Your task to perform on an android device: open the mobile data screen to see how much data has been used Image 0: 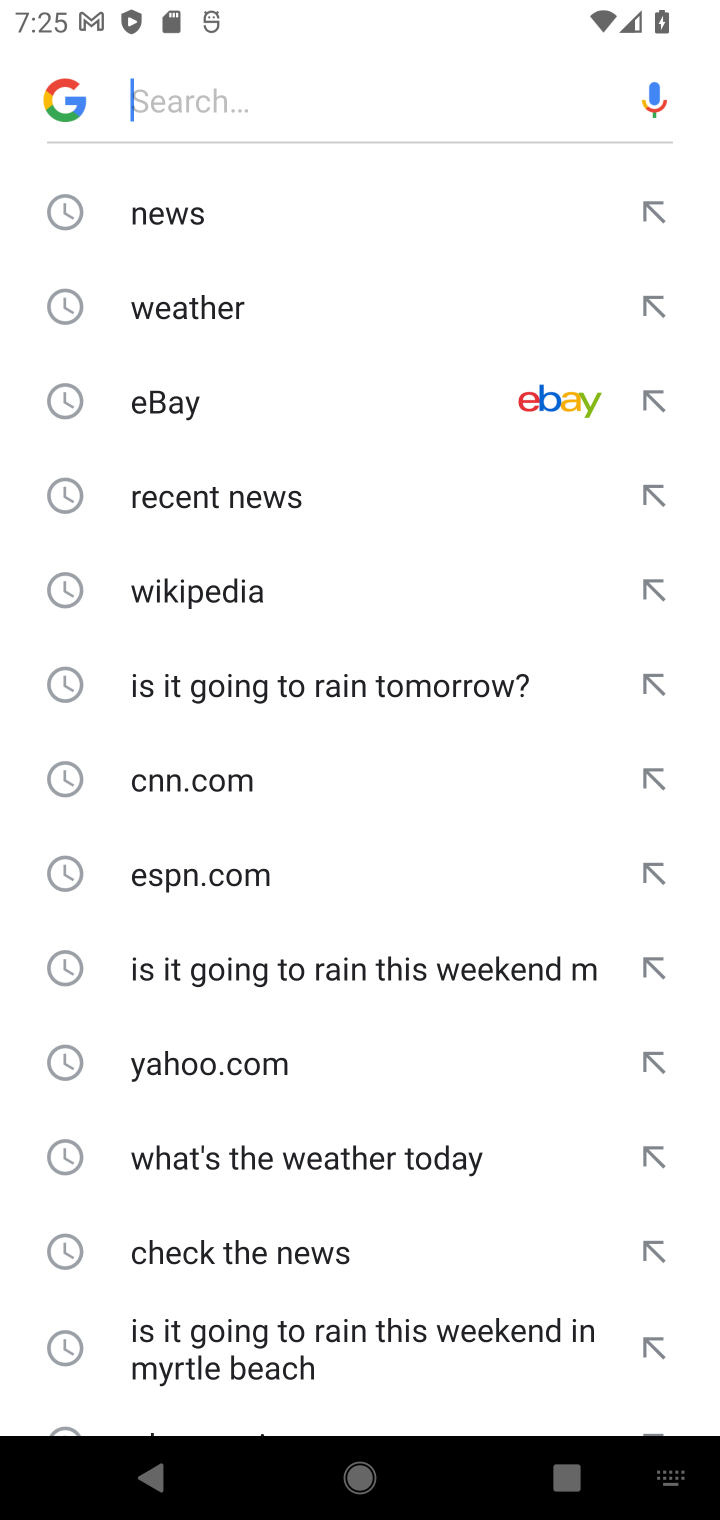
Step 0: press home button
Your task to perform on an android device: open the mobile data screen to see how much data has been used Image 1: 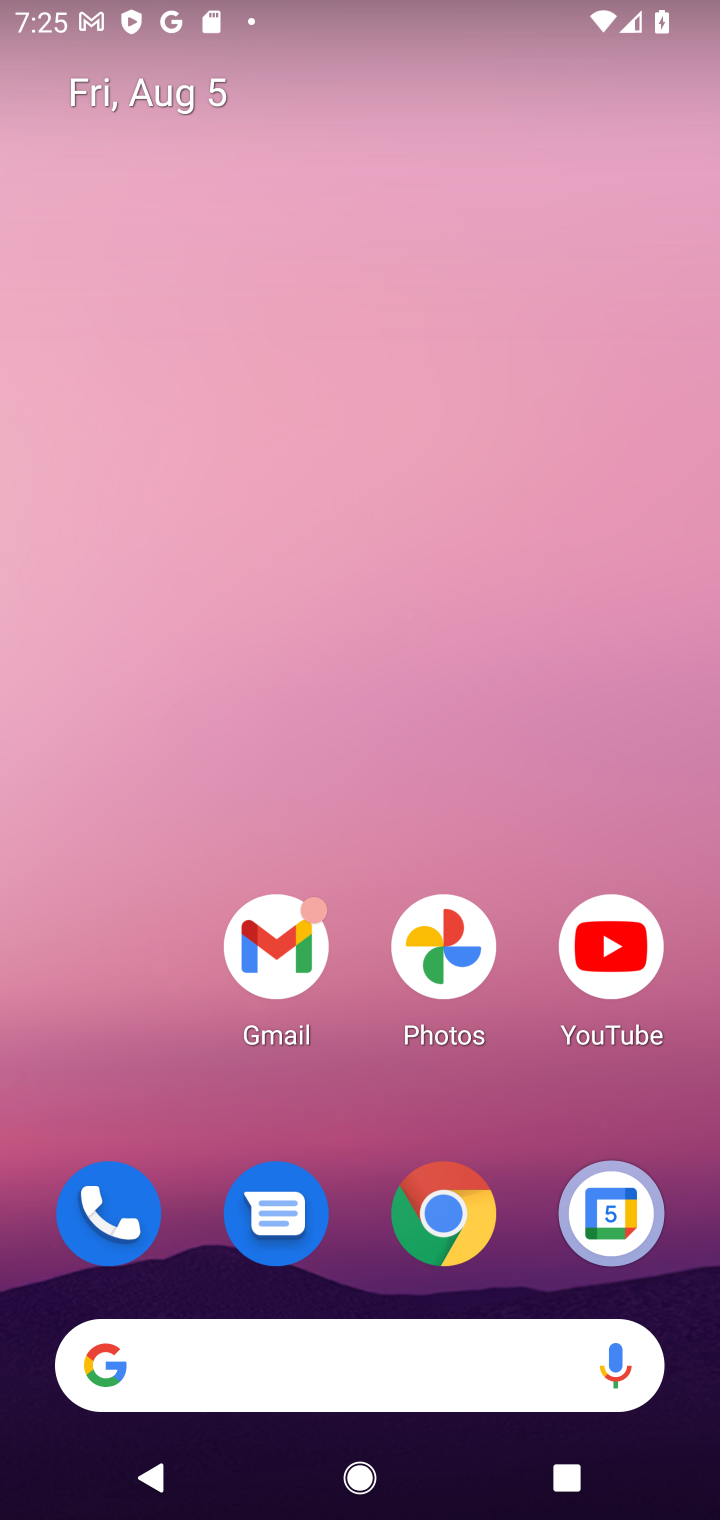
Step 1: drag from (439, 1323) to (589, 118)
Your task to perform on an android device: open the mobile data screen to see how much data has been used Image 2: 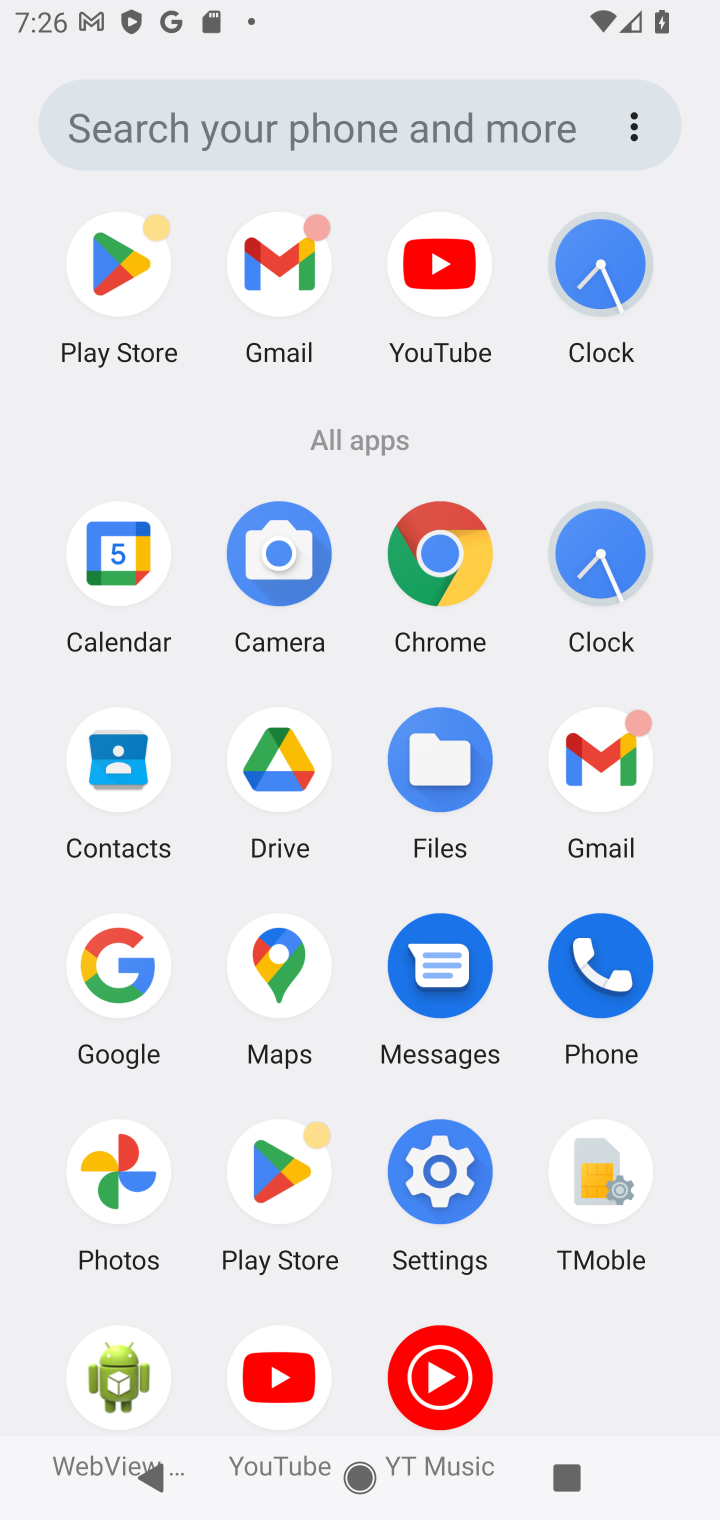
Step 2: click (435, 1166)
Your task to perform on an android device: open the mobile data screen to see how much data has been used Image 3: 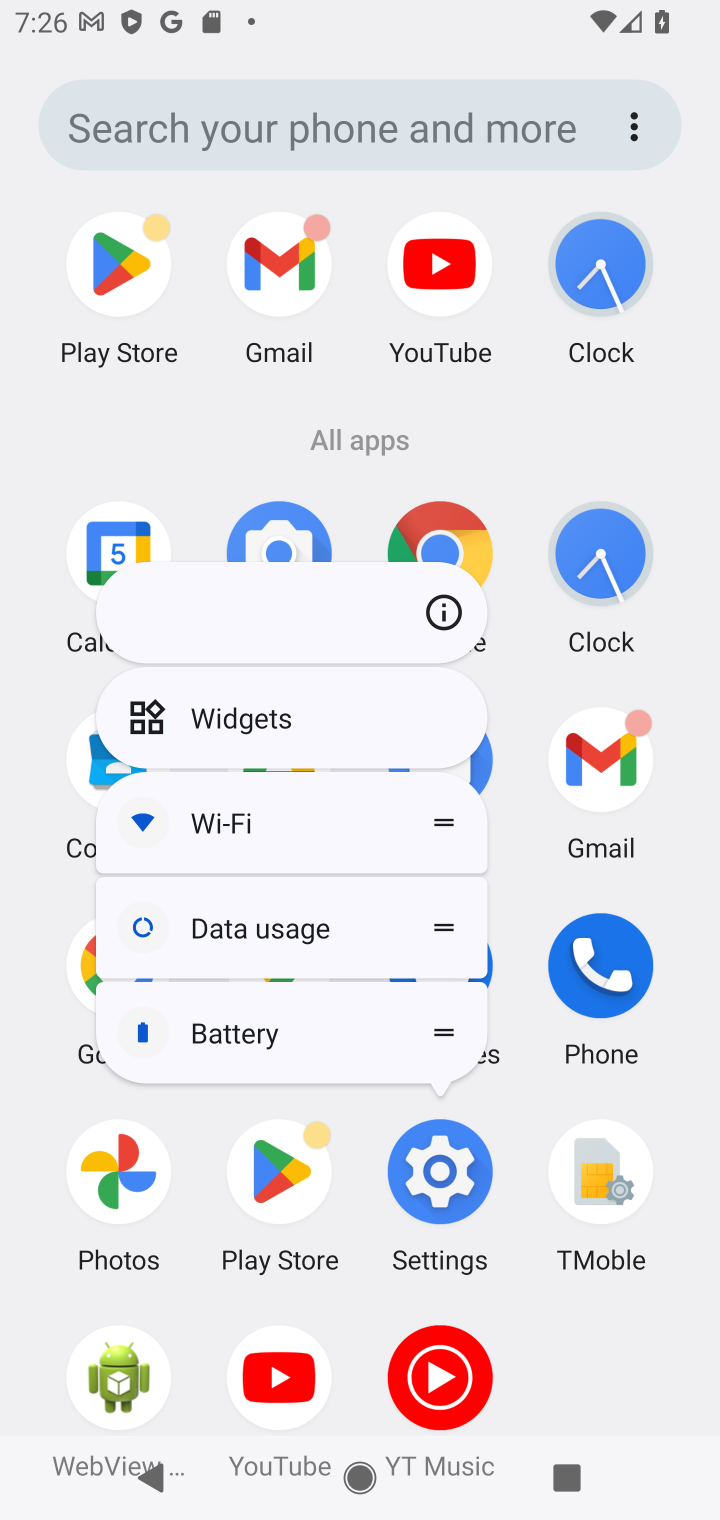
Step 3: click (425, 1186)
Your task to perform on an android device: open the mobile data screen to see how much data has been used Image 4: 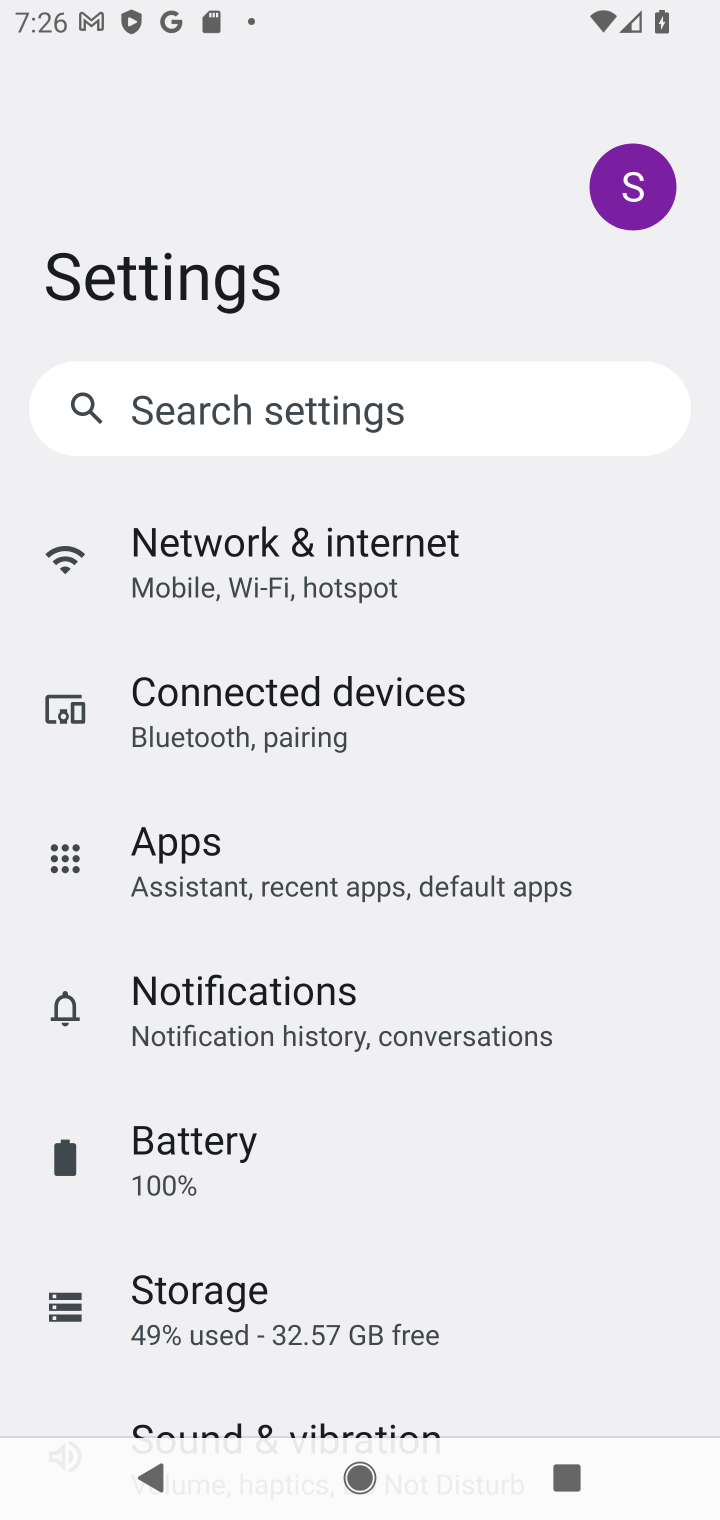
Step 4: click (248, 581)
Your task to perform on an android device: open the mobile data screen to see how much data has been used Image 5: 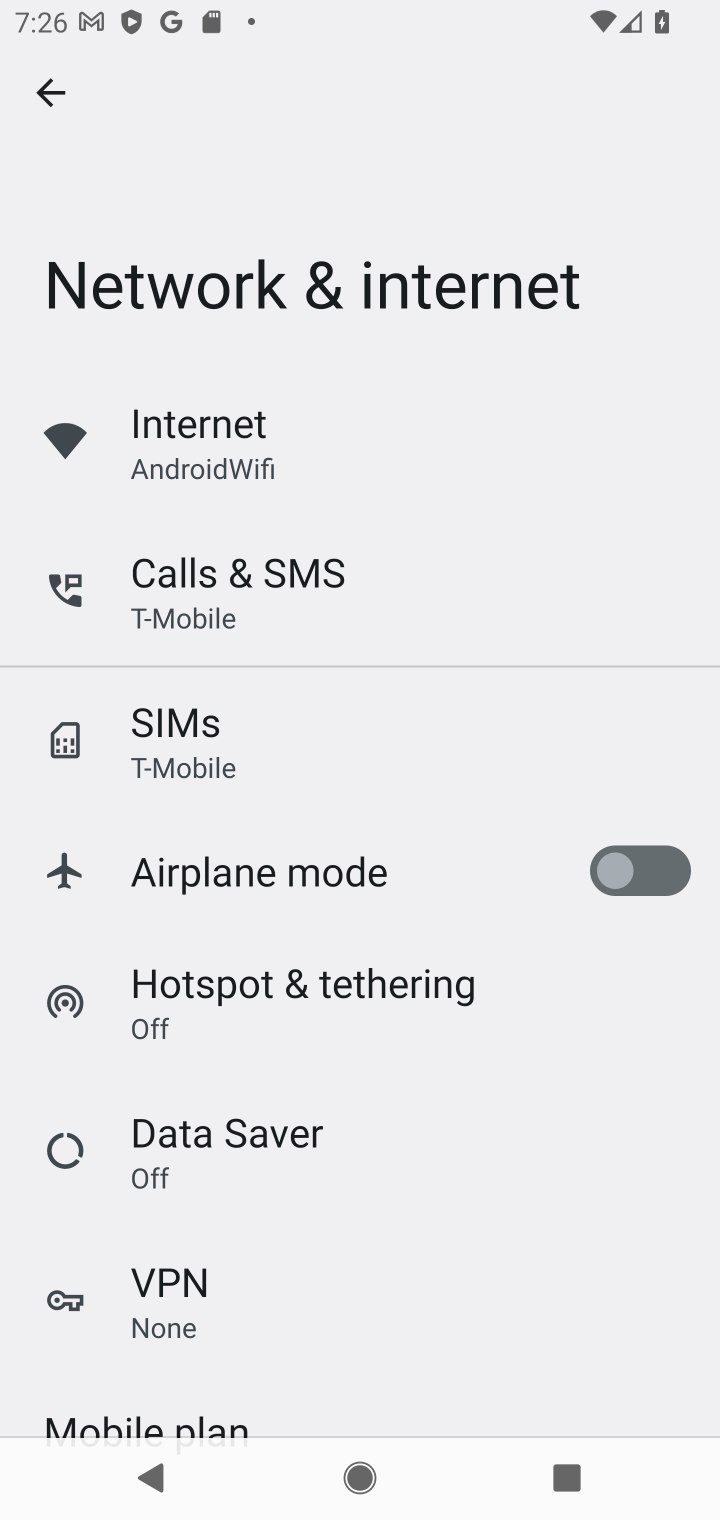
Step 5: click (242, 451)
Your task to perform on an android device: open the mobile data screen to see how much data has been used Image 6: 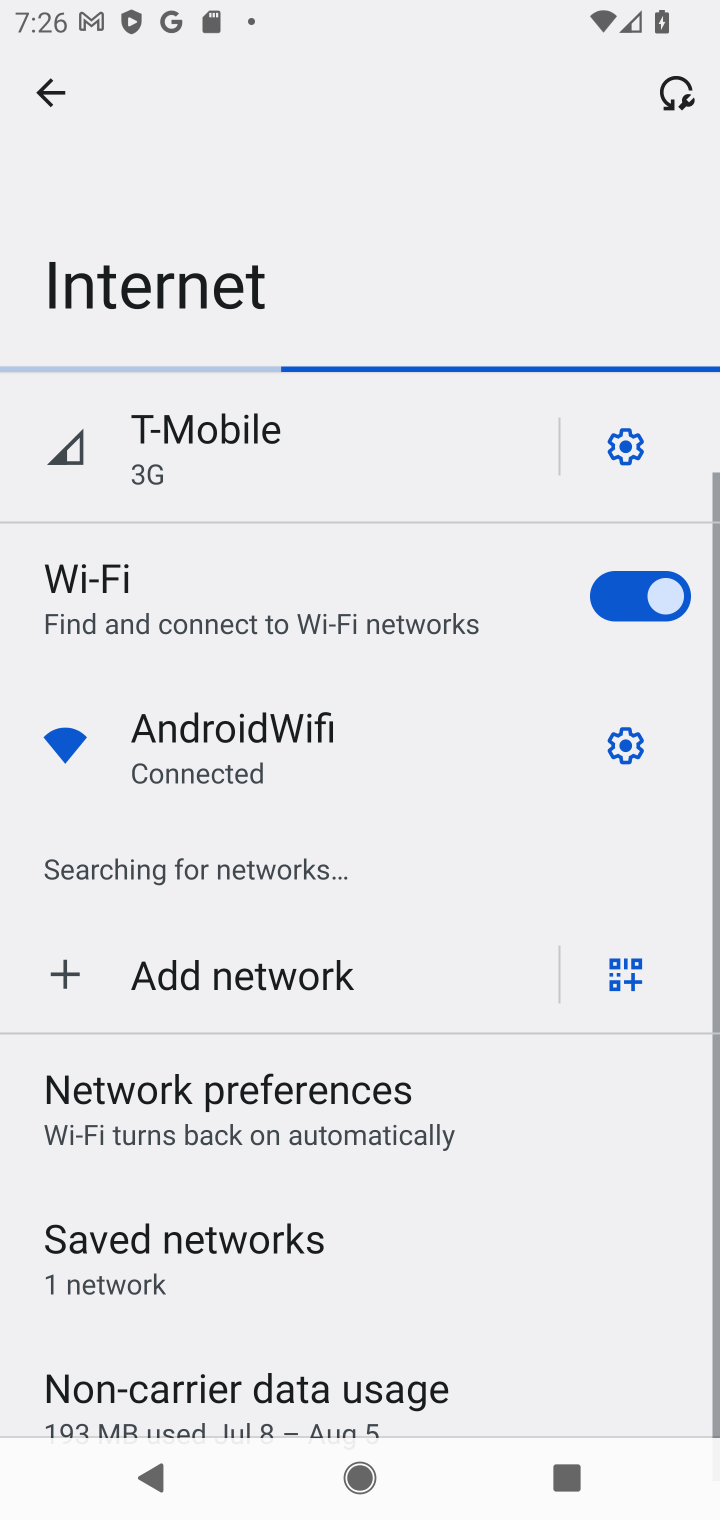
Step 6: drag from (264, 1176) to (300, 680)
Your task to perform on an android device: open the mobile data screen to see how much data has been used Image 7: 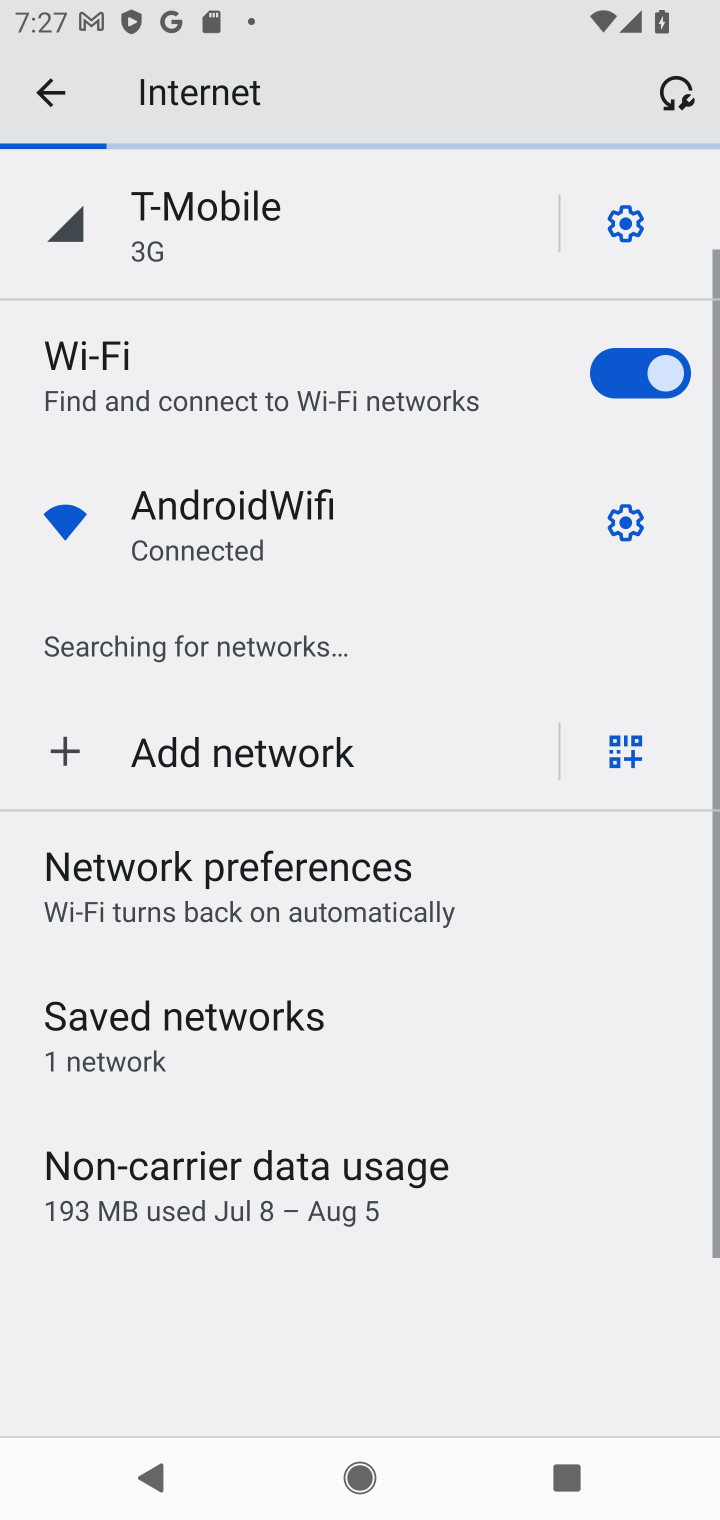
Step 7: click (55, 80)
Your task to perform on an android device: open the mobile data screen to see how much data has been used Image 8: 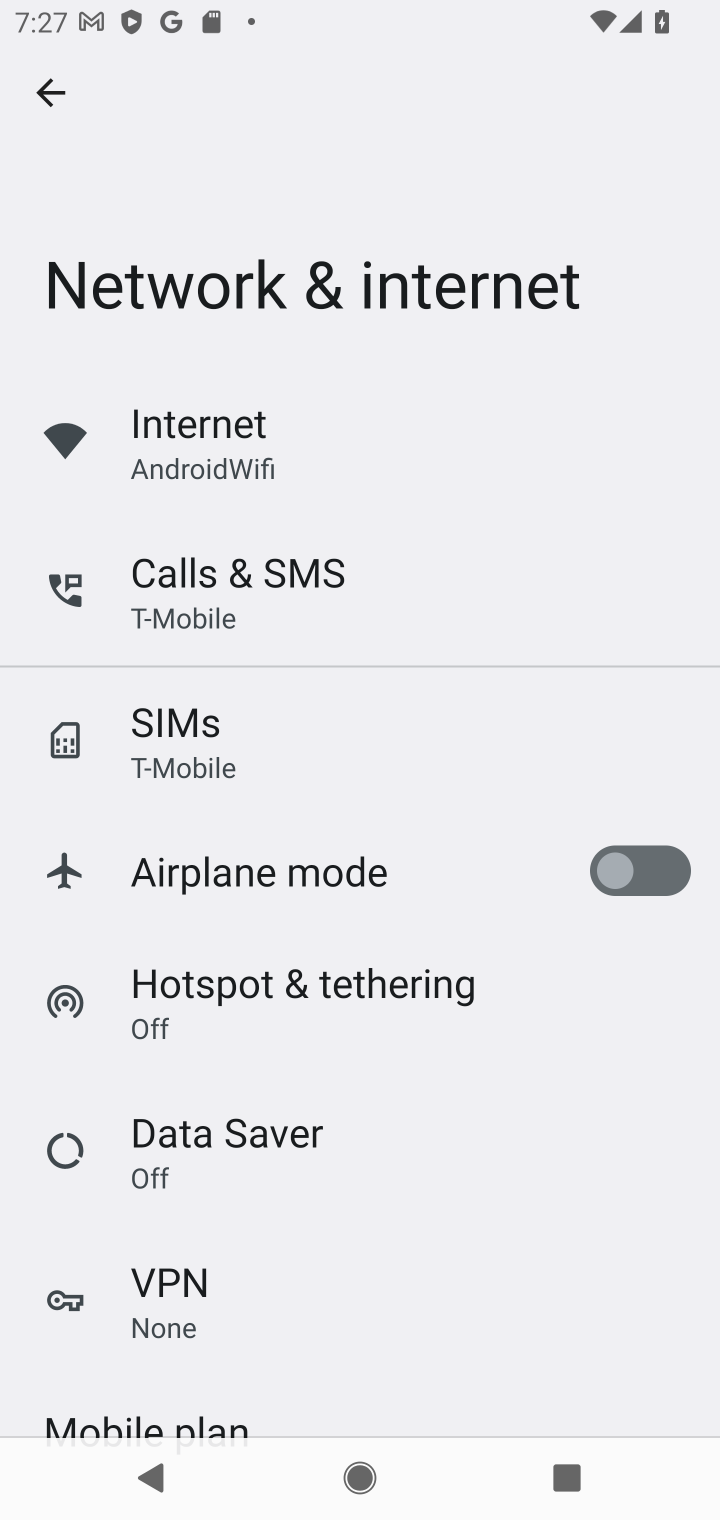
Step 8: drag from (284, 1136) to (426, 414)
Your task to perform on an android device: open the mobile data screen to see how much data has been used Image 9: 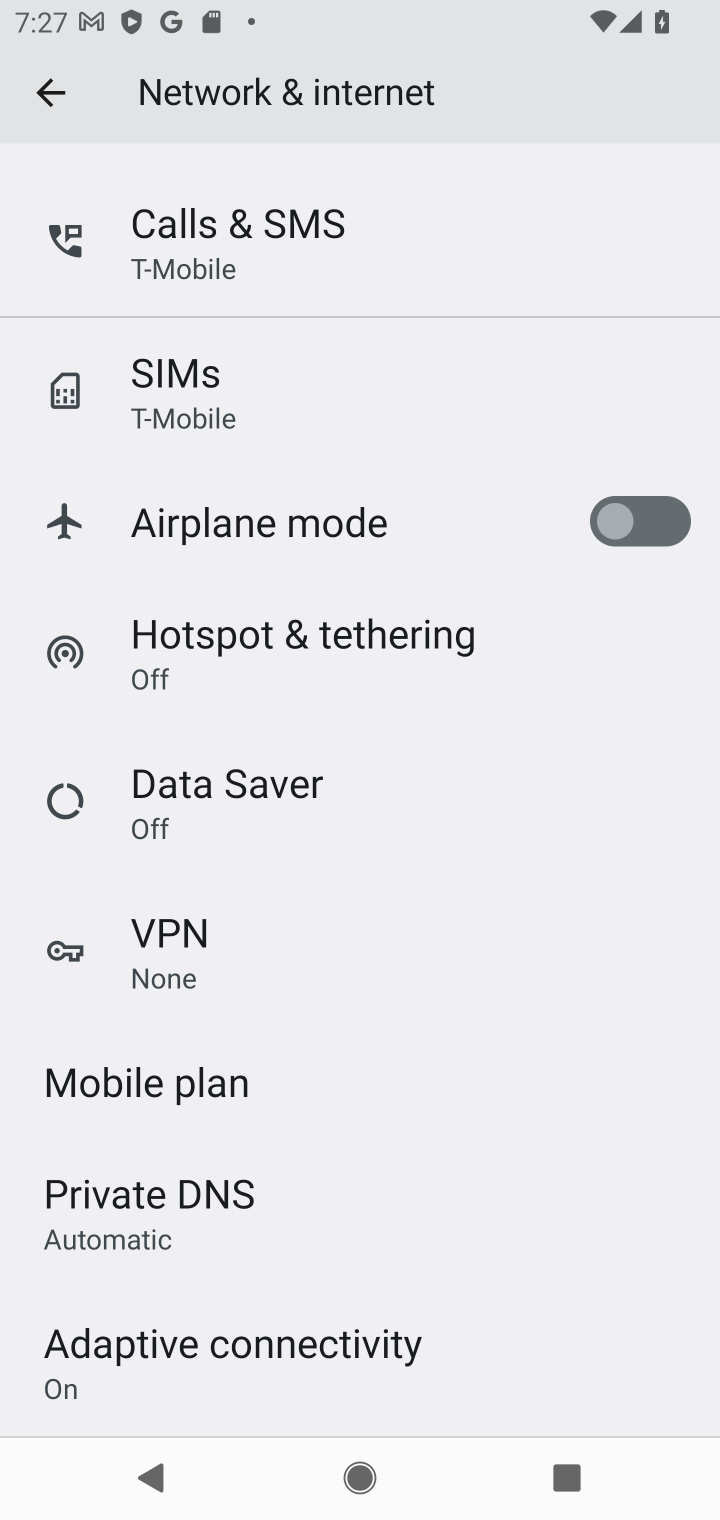
Step 9: click (224, 404)
Your task to perform on an android device: open the mobile data screen to see how much data has been used Image 10: 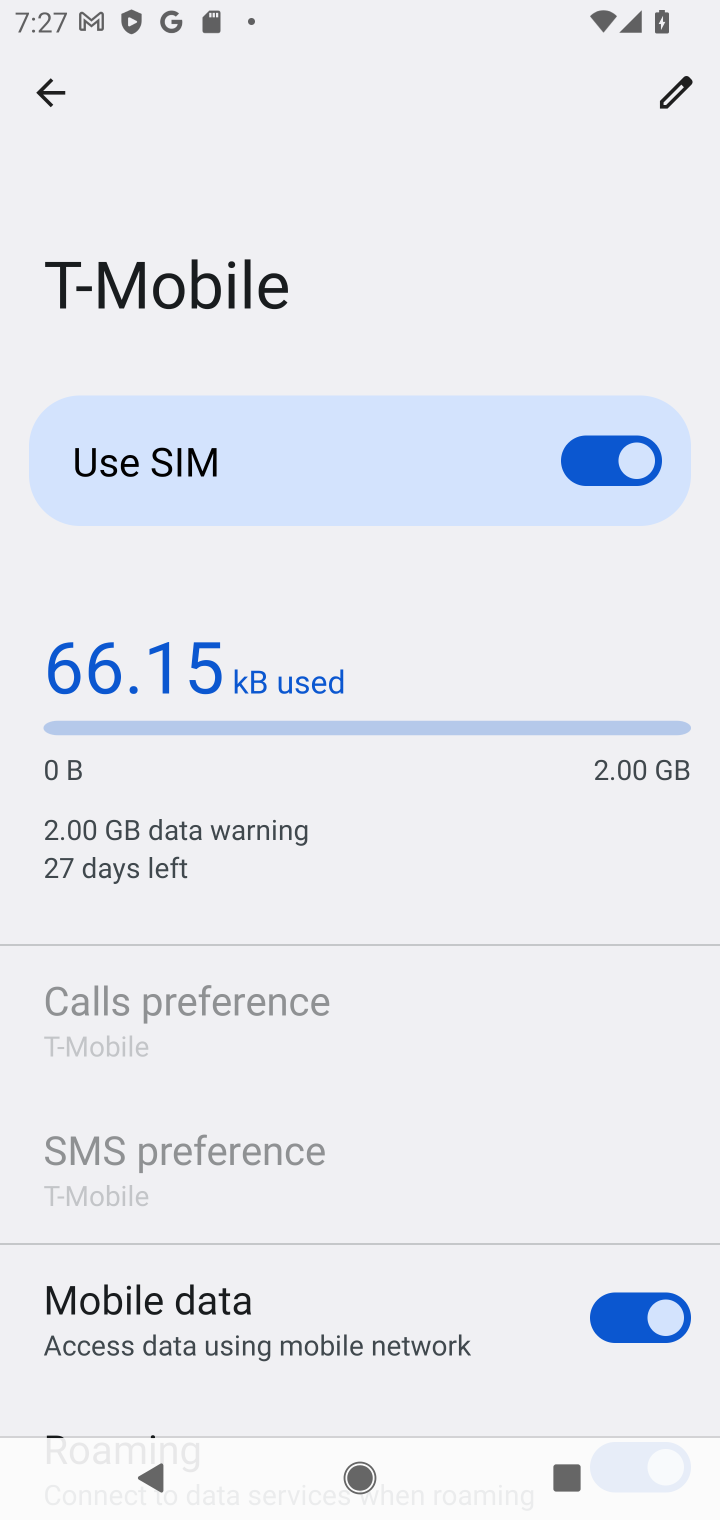
Step 10: task complete